Your task to perform on an android device: uninstall "Reddit" Image 0: 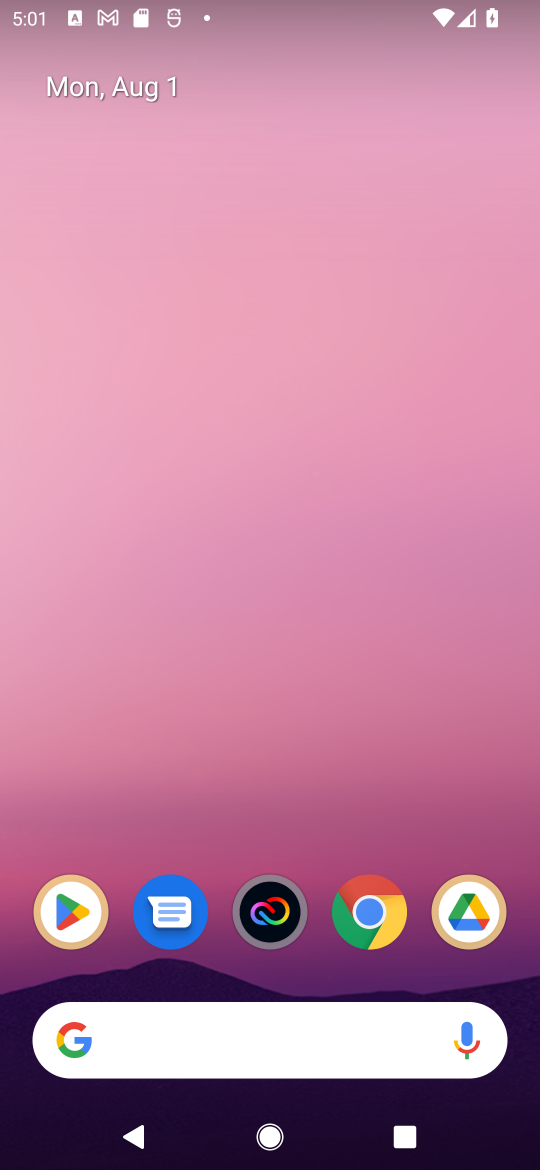
Step 0: click (78, 911)
Your task to perform on an android device: uninstall "Reddit" Image 1: 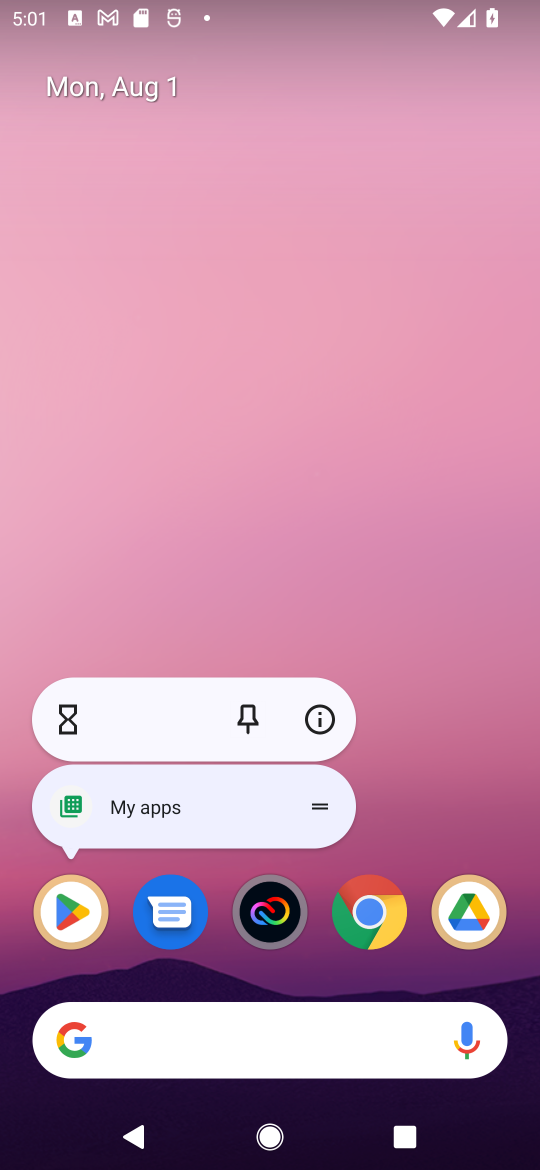
Step 1: click (55, 909)
Your task to perform on an android device: uninstall "Reddit" Image 2: 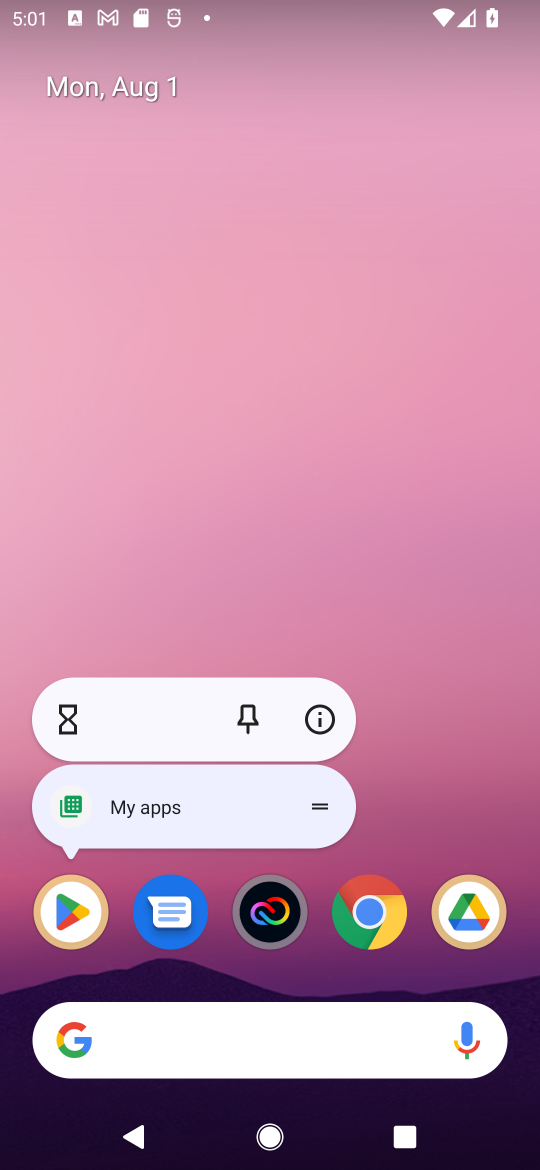
Step 2: click (65, 915)
Your task to perform on an android device: uninstall "Reddit" Image 3: 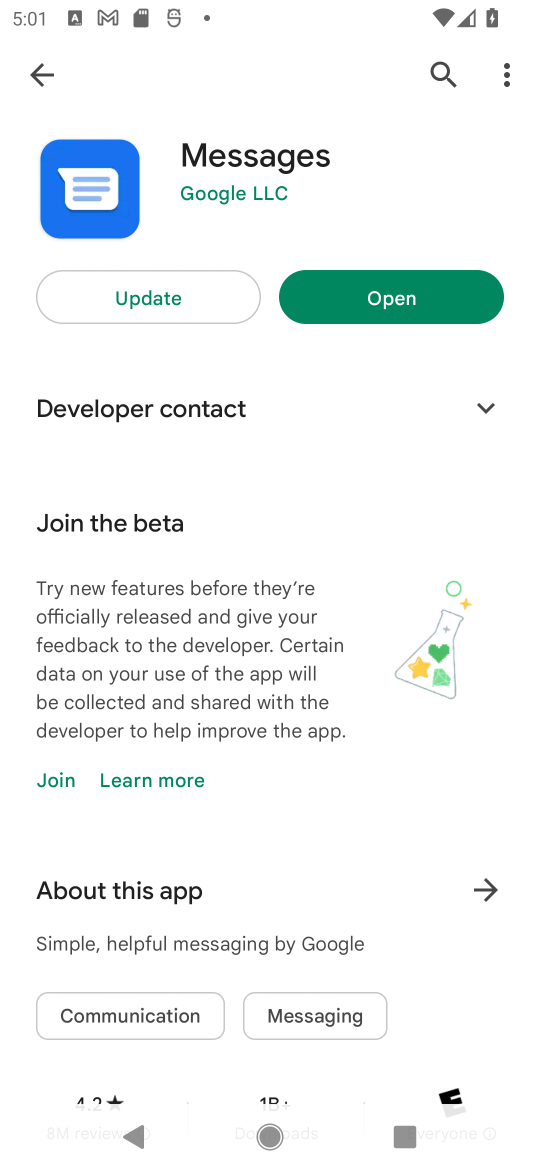
Step 3: click (436, 78)
Your task to perform on an android device: uninstall "Reddit" Image 4: 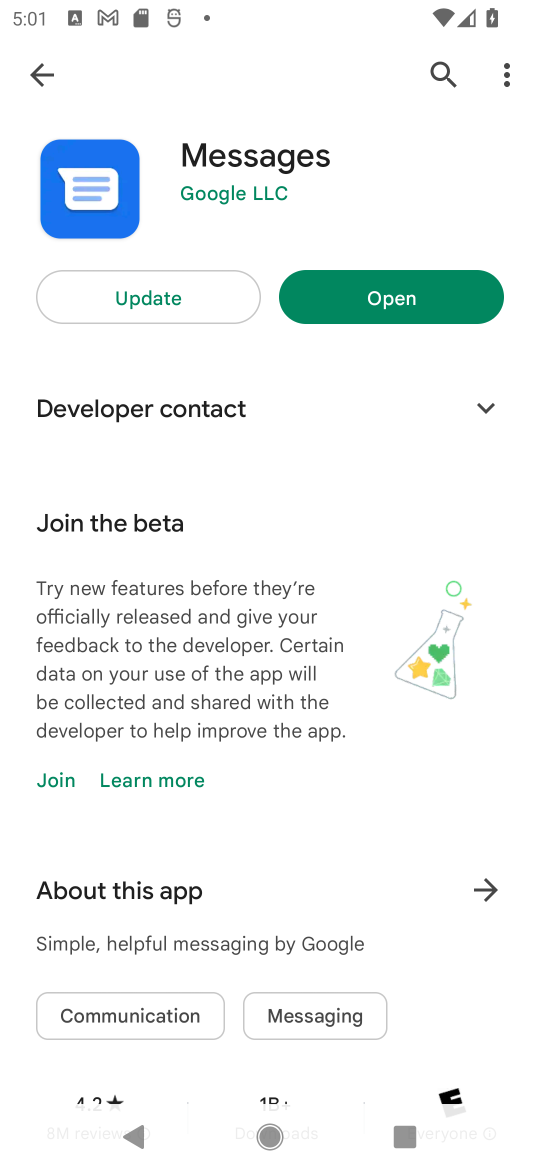
Step 4: click (444, 82)
Your task to perform on an android device: uninstall "Reddit" Image 5: 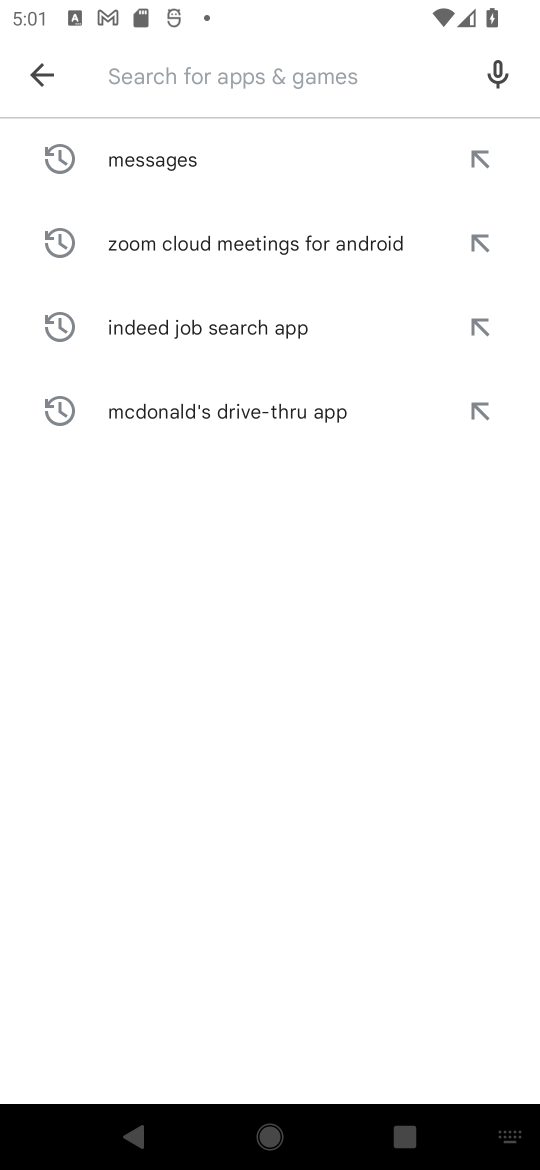
Step 5: type "Reddit"
Your task to perform on an android device: uninstall "Reddit" Image 6: 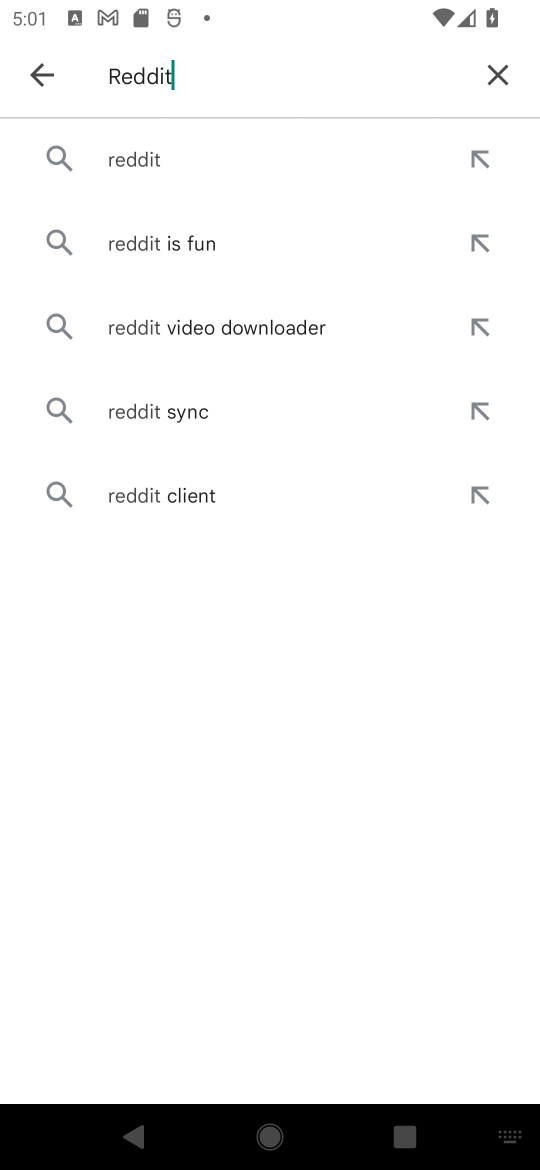
Step 6: click (134, 150)
Your task to perform on an android device: uninstall "Reddit" Image 7: 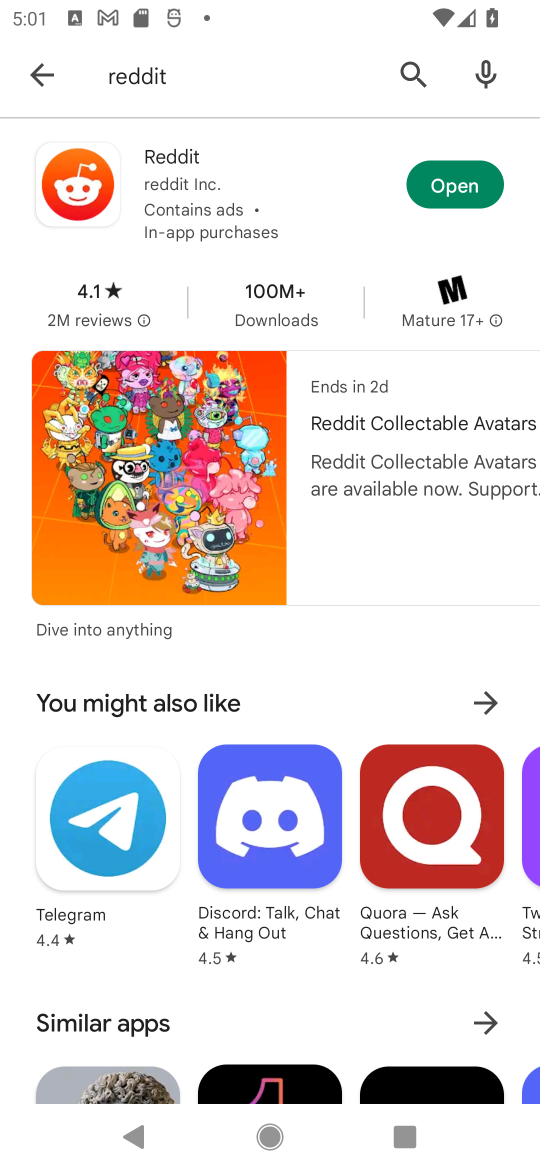
Step 7: click (152, 200)
Your task to perform on an android device: uninstall "Reddit" Image 8: 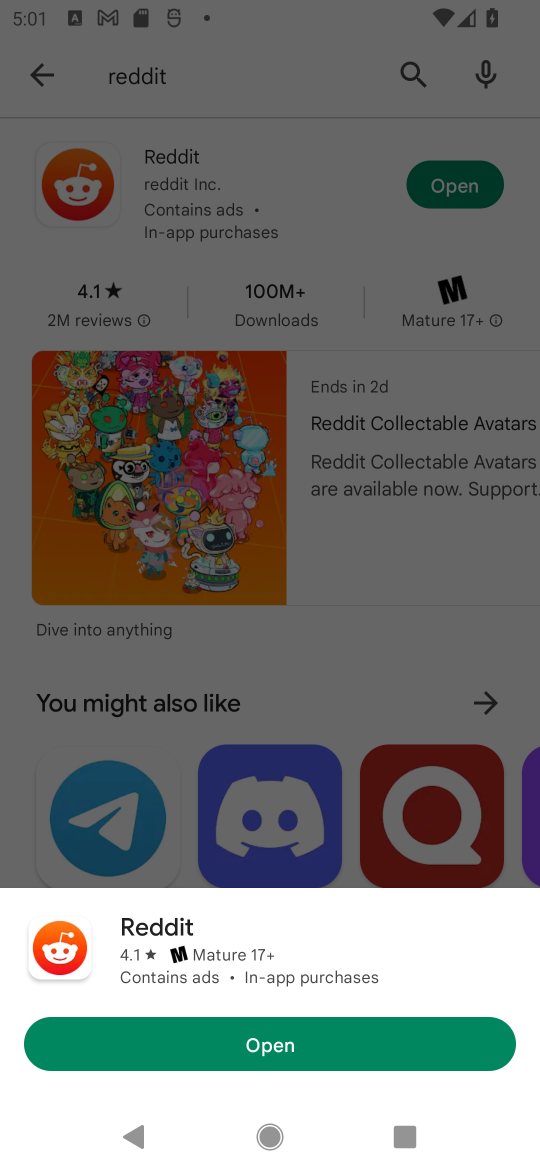
Step 8: click (123, 139)
Your task to perform on an android device: uninstall "Reddit" Image 9: 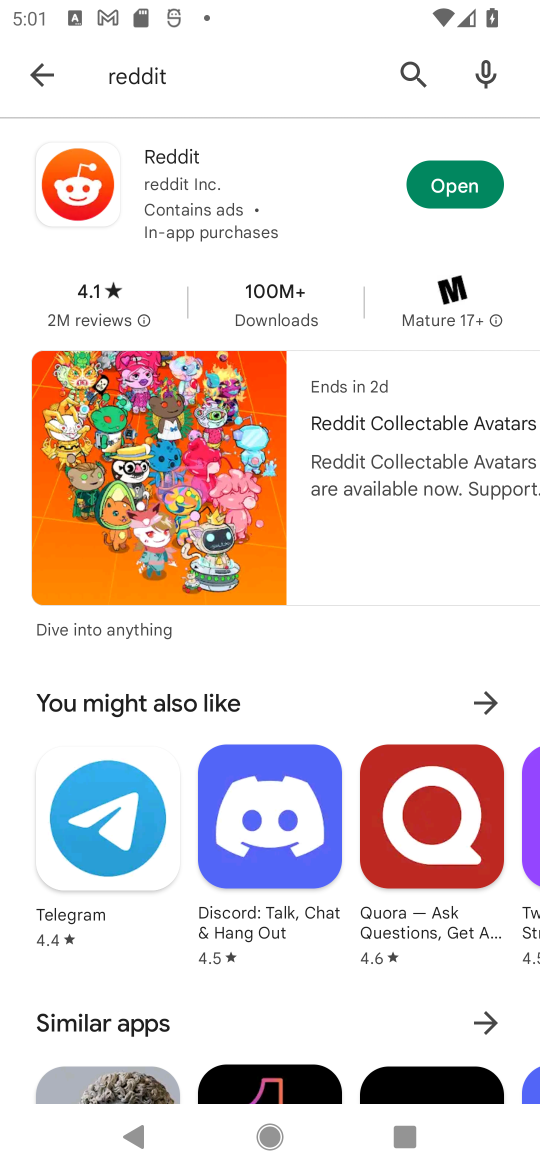
Step 9: click (178, 184)
Your task to perform on an android device: uninstall "Reddit" Image 10: 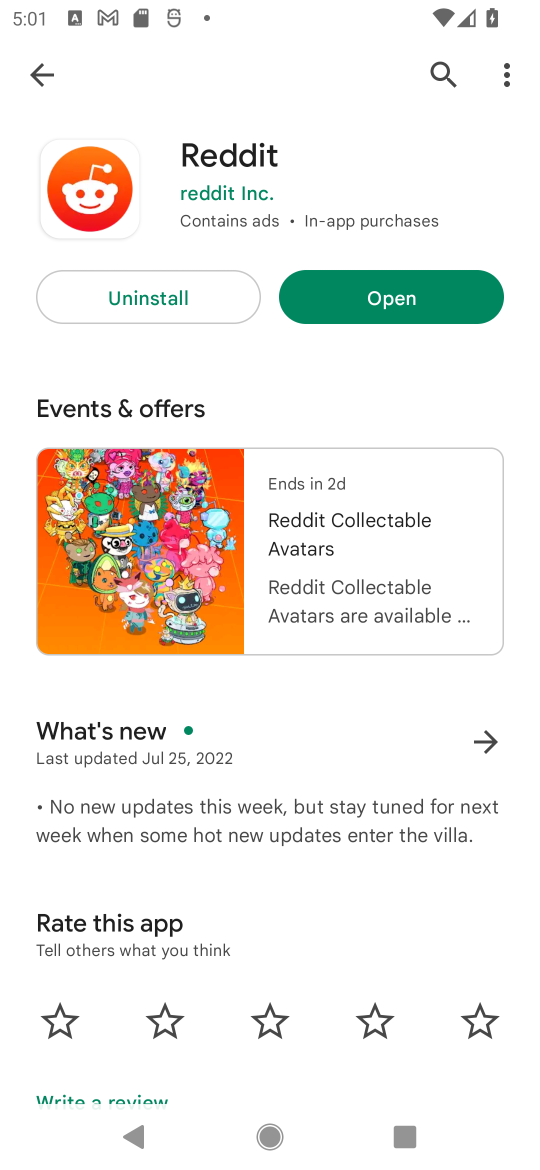
Step 10: click (153, 302)
Your task to perform on an android device: uninstall "Reddit" Image 11: 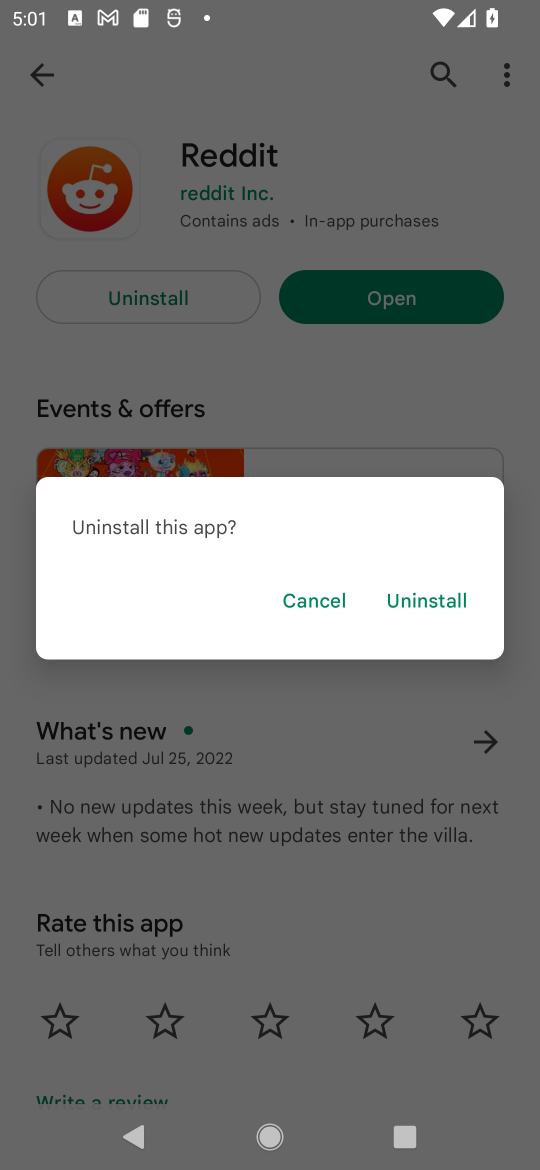
Step 11: click (455, 597)
Your task to perform on an android device: uninstall "Reddit" Image 12: 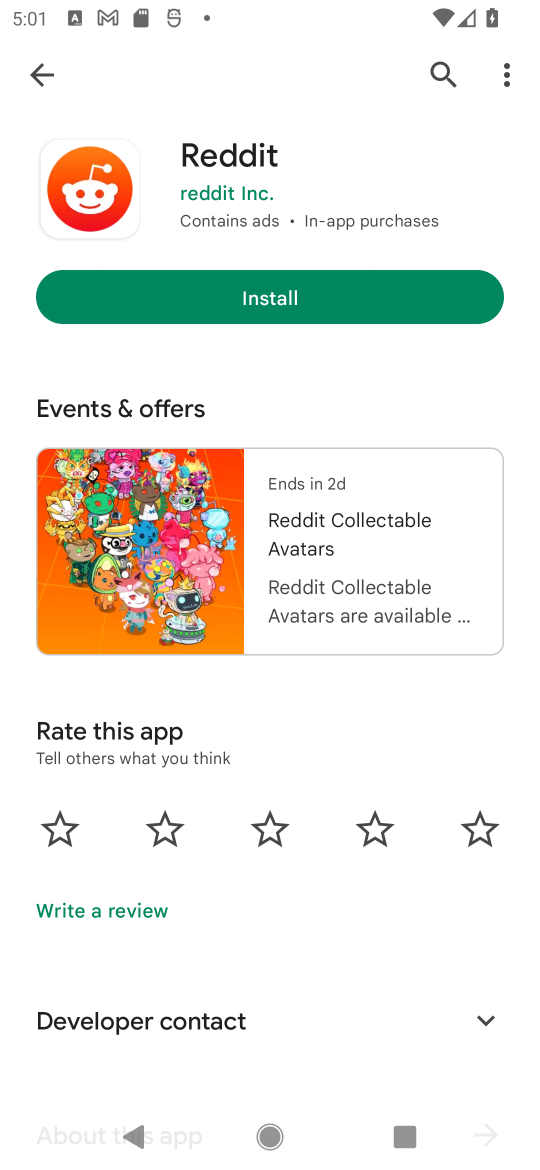
Step 12: task complete